Your task to perform on an android device: clear all cookies in the chrome app Image 0: 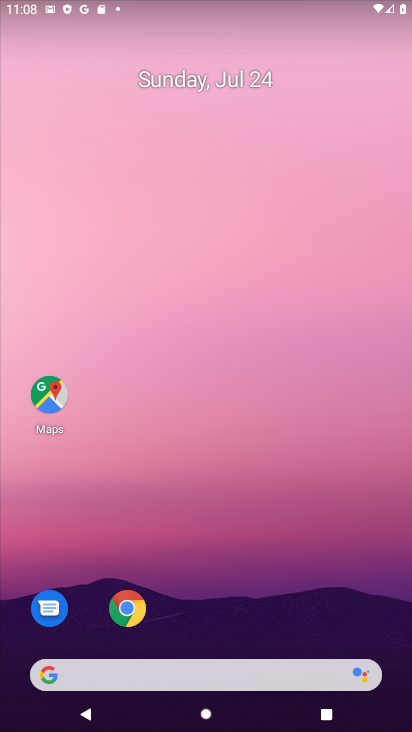
Step 0: drag from (238, 602) to (100, 51)
Your task to perform on an android device: clear all cookies in the chrome app Image 1: 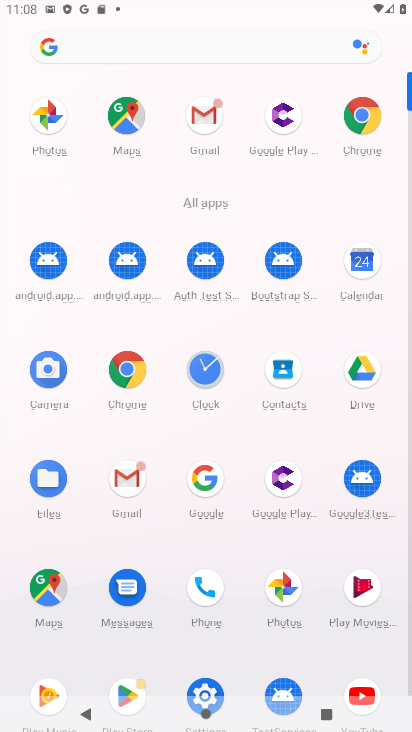
Step 1: click (362, 133)
Your task to perform on an android device: clear all cookies in the chrome app Image 2: 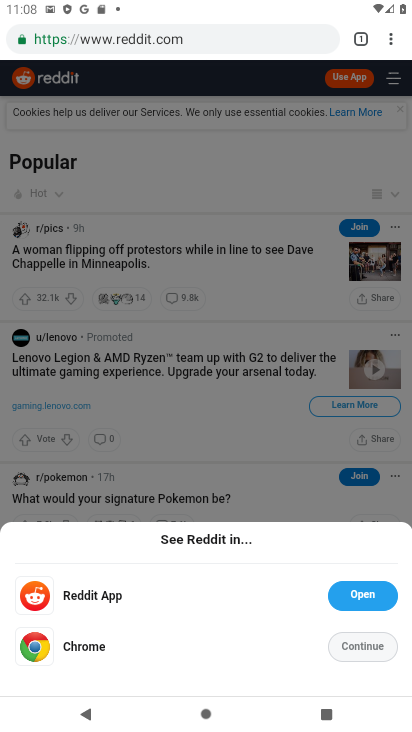
Step 2: drag from (385, 34) to (236, 222)
Your task to perform on an android device: clear all cookies in the chrome app Image 3: 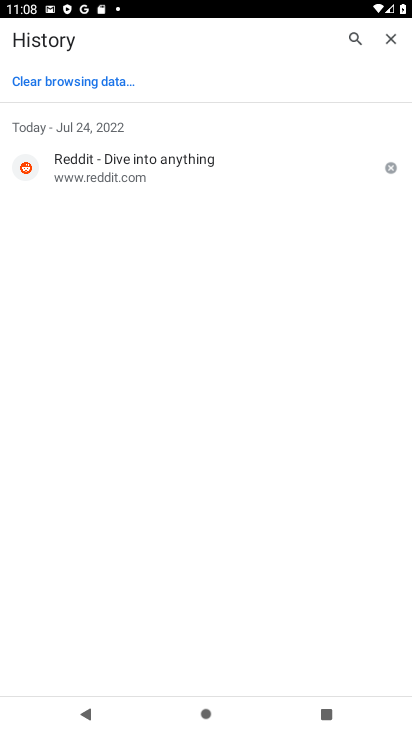
Step 3: click (91, 77)
Your task to perform on an android device: clear all cookies in the chrome app Image 4: 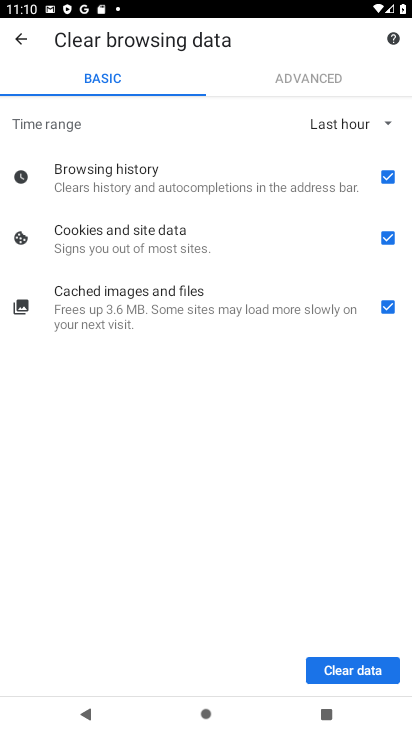
Step 4: click (386, 305)
Your task to perform on an android device: clear all cookies in the chrome app Image 5: 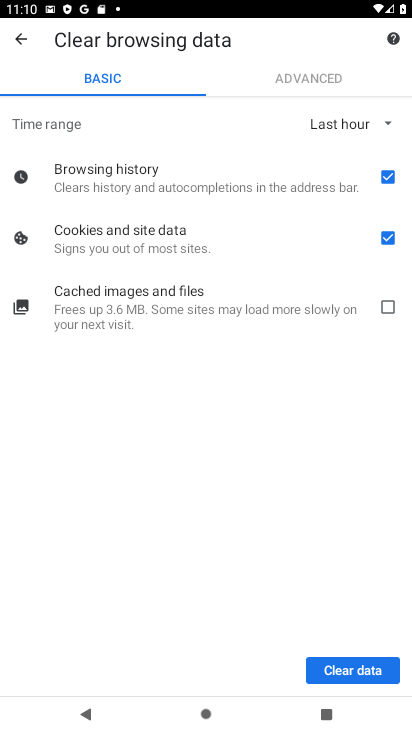
Step 5: click (384, 174)
Your task to perform on an android device: clear all cookies in the chrome app Image 6: 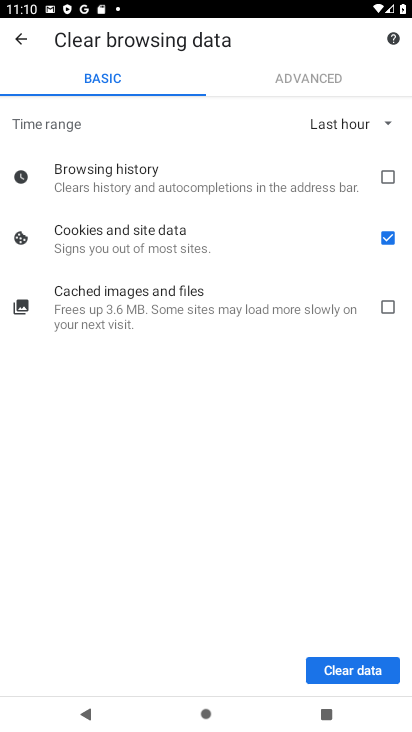
Step 6: task complete